Your task to perform on an android device: Search for Mexican restaurants on Maps Image 0: 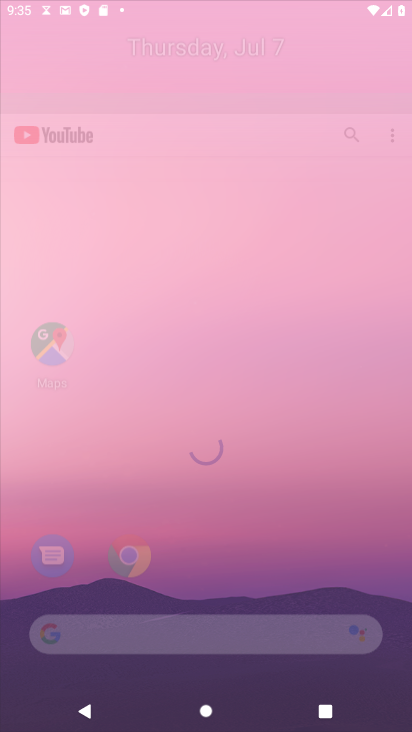
Step 0: click (315, 3)
Your task to perform on an android device: Search for Mexican restaurants on Maps Image 1: 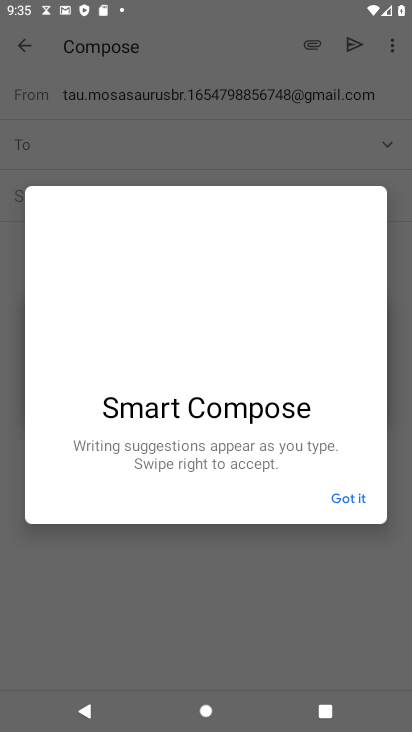
Step 1: press home button
Your task to perform on an android device: Search for Mexican restaurants on Maps Image 2: 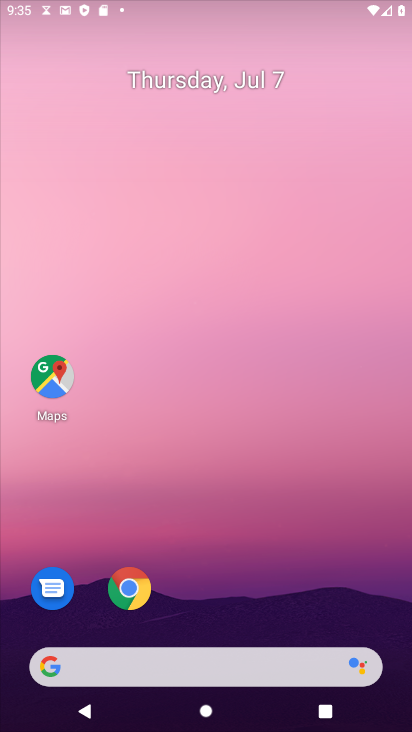
Step 2: drag from (193, 649) to (322, 37)
Your task to perform on an android device: Search for Mexican restaurants on Maps Image 3: 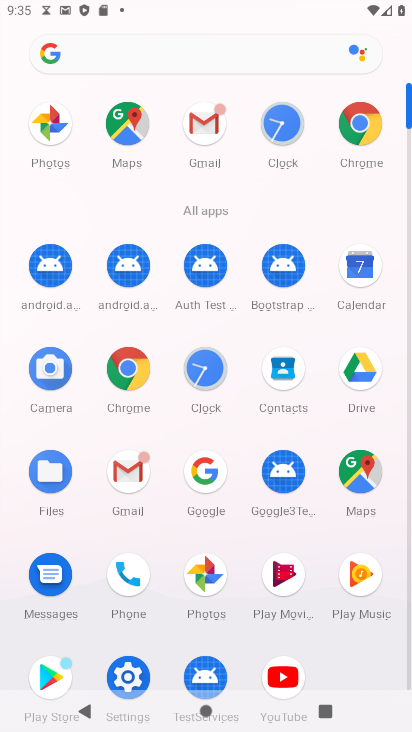
Step 3: click (365, 481)
Your task to perform on an android device: Search for Mexican restaurants on Maps Image 4: 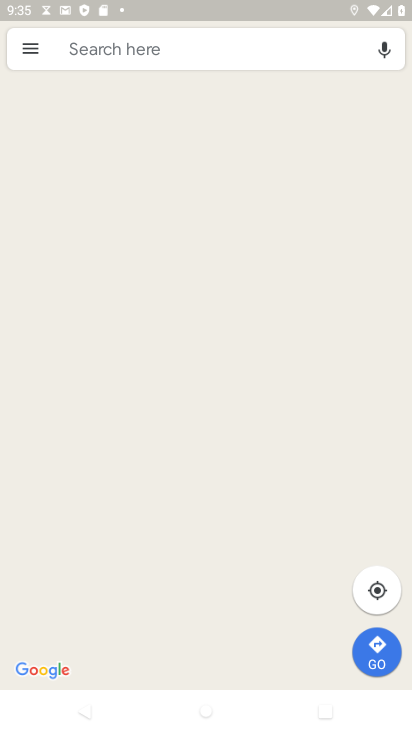
Step 4: click (162, 41)
Your task to perform on an android device: Search for Mexican restaurants on Maps Image 5: 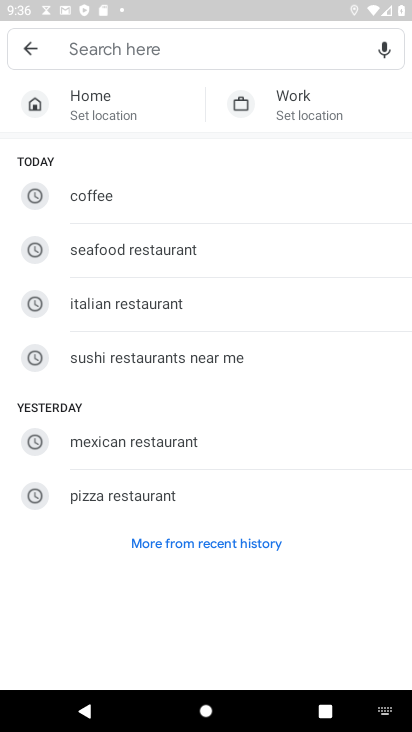
Step 5: type "Mexican restaurants"
Your task to perform on an android device: Search for Mexican restaurants on Maps Image 6: 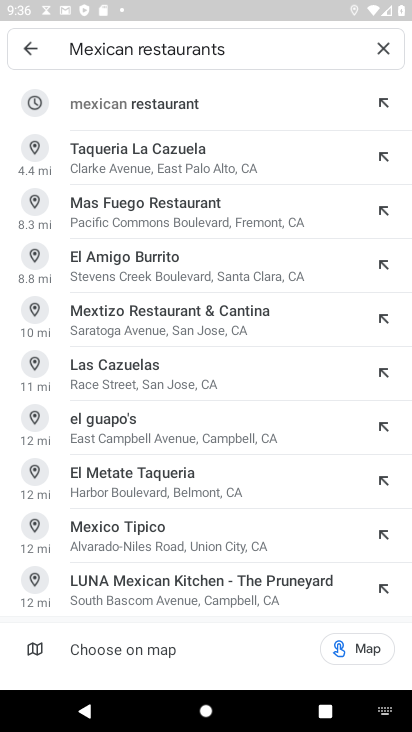
Step 6: click (131, 113)
Your task to perform on an android device: Search for Mexican restaurants on Maps Image 7: 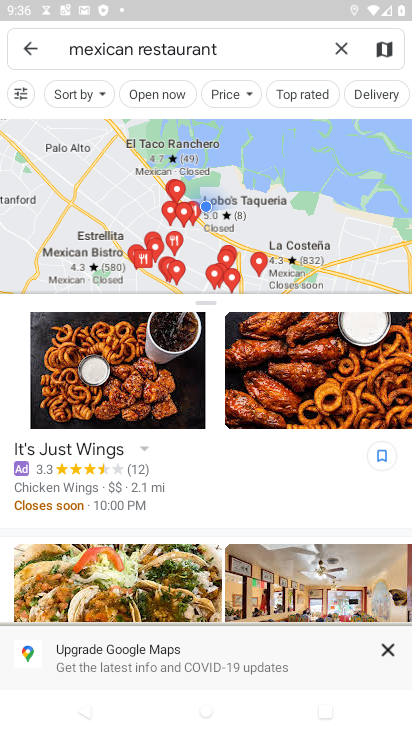
Step 7: task complete